Your task to perform on an android device: refresh tabs in the chrome app Image 0: 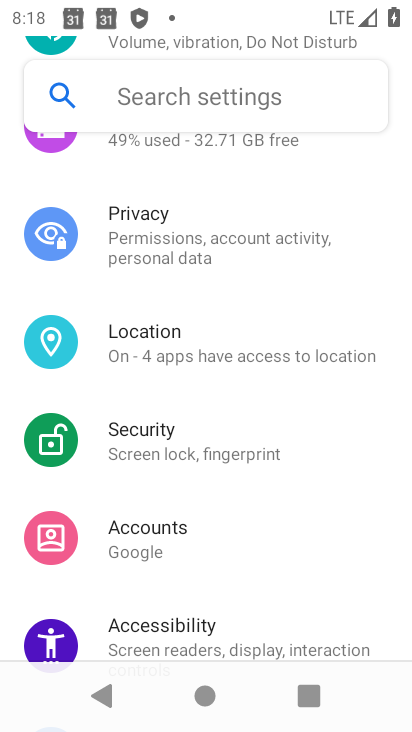
Step 0: press home button
Your task to perform on an android device: refresh tabs in the chrome app Image 1: 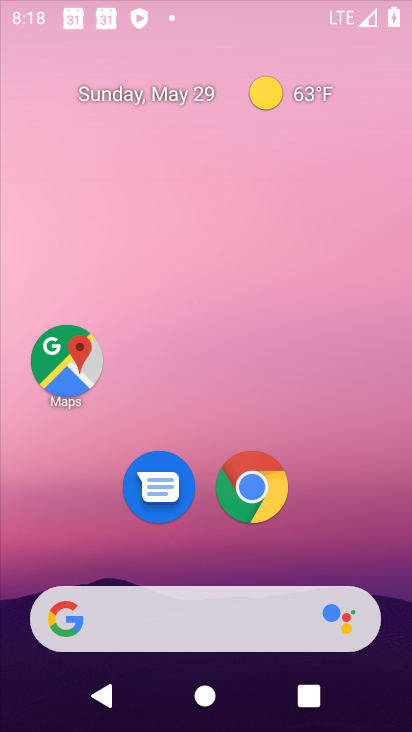
Step 1: drag from (220, 615) to (234, 149)
Your task to perform on an android device: refresh tabs in the chrome app Image 2: 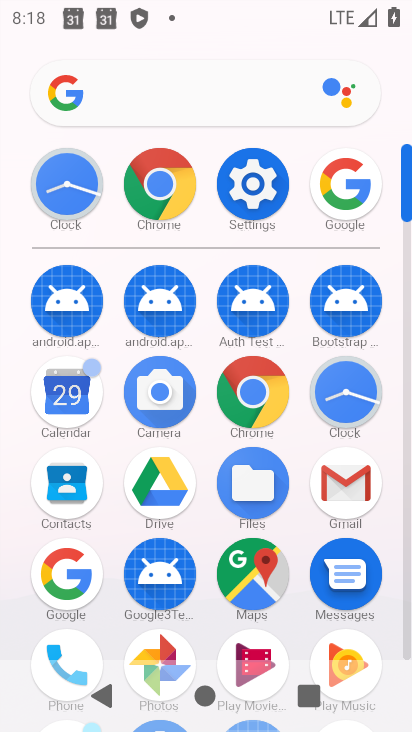
Step 2: click (164, 192)
Your task to perform on an android device: refresh tabs in the chrome app Image 3: 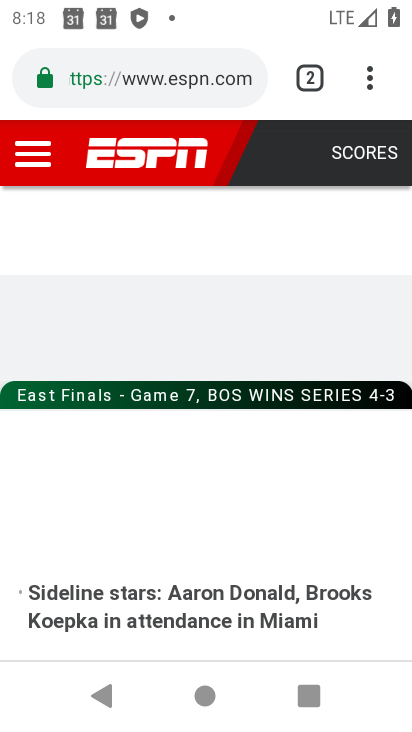
Step 3: click (364, 83)
Your task to perform on an android device: refresh tabs in the chrome app Image 4: 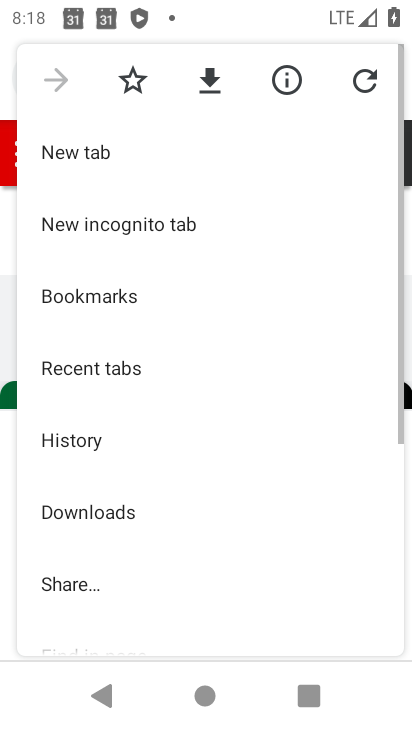
Step 4: click (367, 92)
Your task to perform on an android device: refresh tabs in the chrome app Image 5: 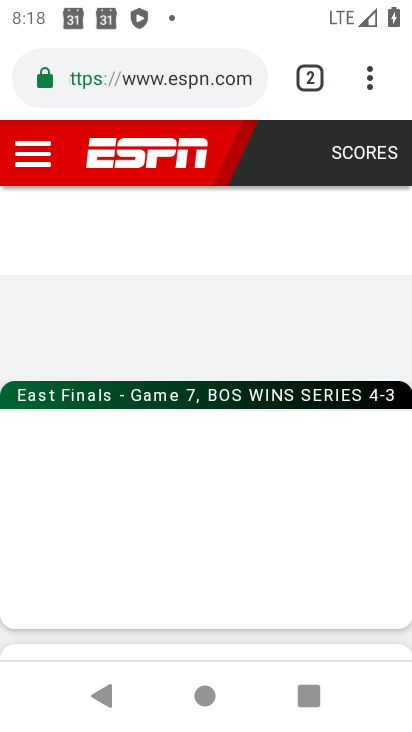
Step 5: task complete